Your task to perform on an android device: Search for Mexican restaurants on Maps Image 0: 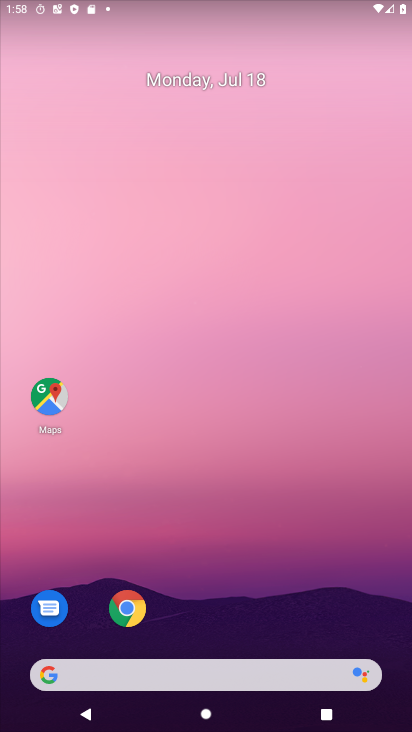
Step 0: drag from (224, 719) to (207, 175)
Your task to perform on an android device: Search for Mexican restaurants on Maps Image 1: 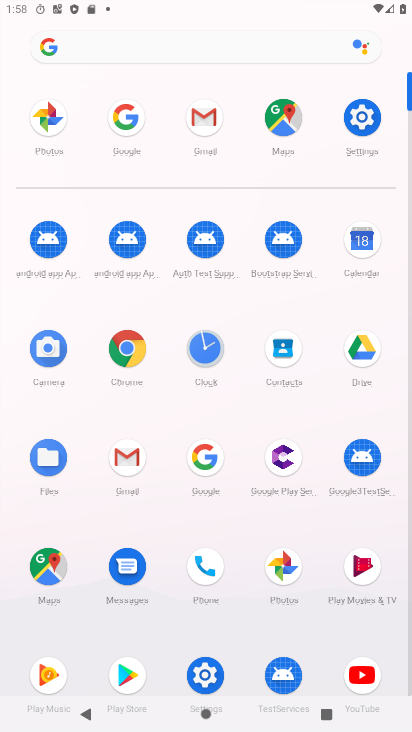
Step 1: click (47, 568)
Your task to perform on an android device: Search for Mexican restaurants on Maps Image 2: 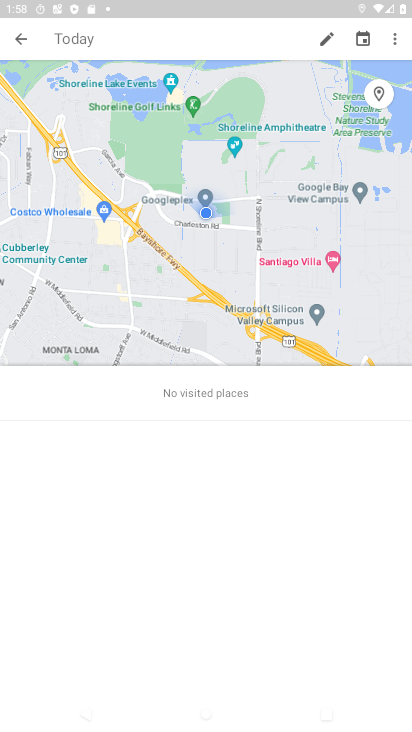
Step 2: click (23, 33)
Your task to perform on an android device: Search for Mexican restaurants on Maps Image 3: 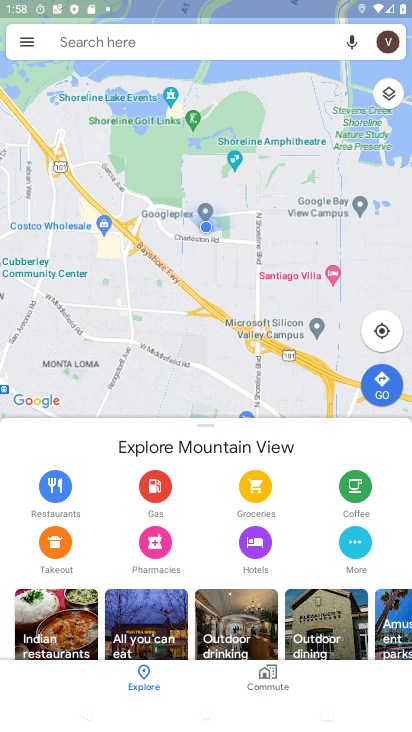
Step 3: click (227, 47)
Your task to perform on an android device: Search for Mexican restaurants on Maps Image 4: 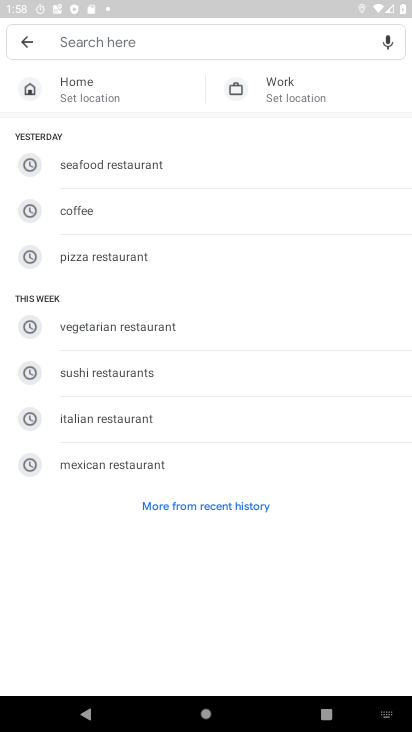
Step 4: type "Mexican restaurants"
Your task to perform on an android device: Search for Mexican restaurants on Maps Image 5: 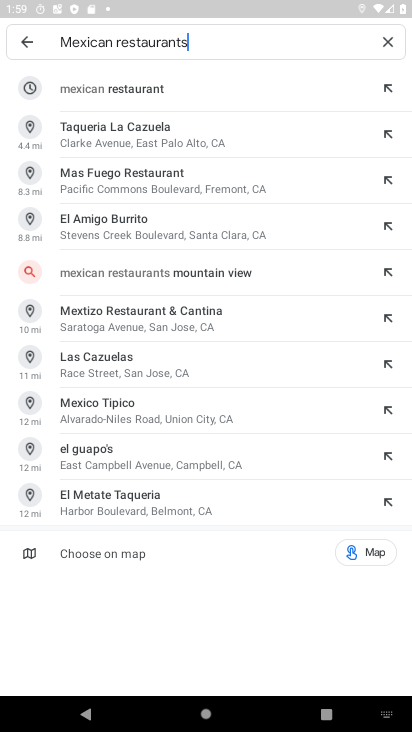
Step 5: click (134, 84)
Your task to perform on an android device: Search for Mexican restaurants on Maps Image 6: 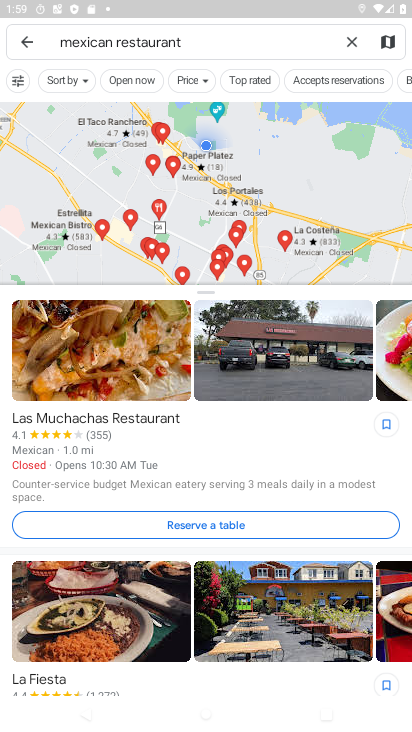
Step 6: task complete